Your task to perform on an android device: find which apps use the phone's location Image 0: 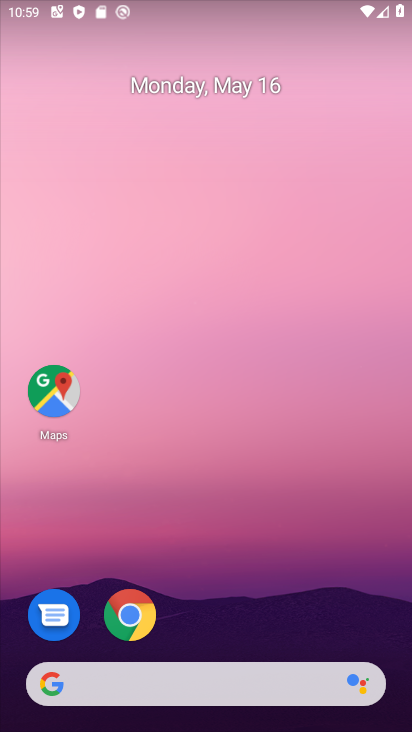
Step 0: drag from (188, 726) to (192, 207)
Your task to perform on an android device: find which apps use the phone's location Image 1: 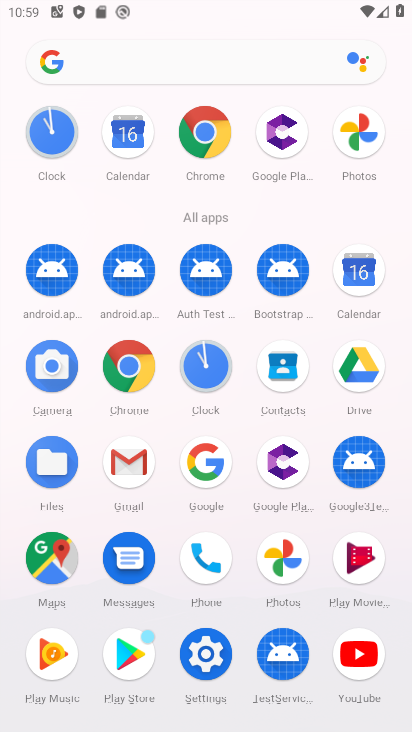
Step 1: click (203, 650)
Your task to perform on an android device: find which apps use the phone's location Image 2: 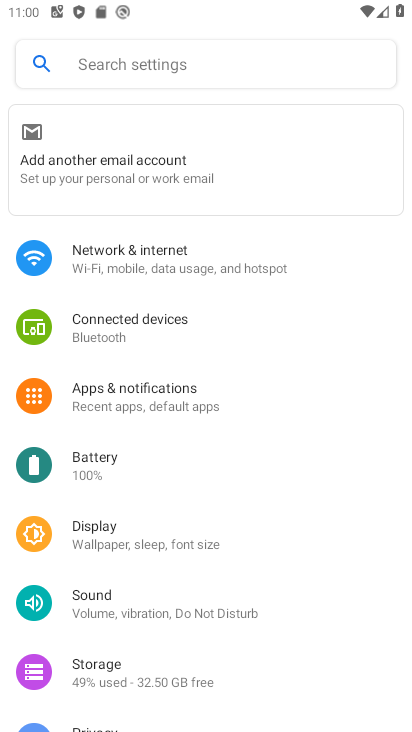
Step 2: drag from (133, 681) to (177, 372)
Your task to perform on an android device: find which apps use the phone's location Image 3: 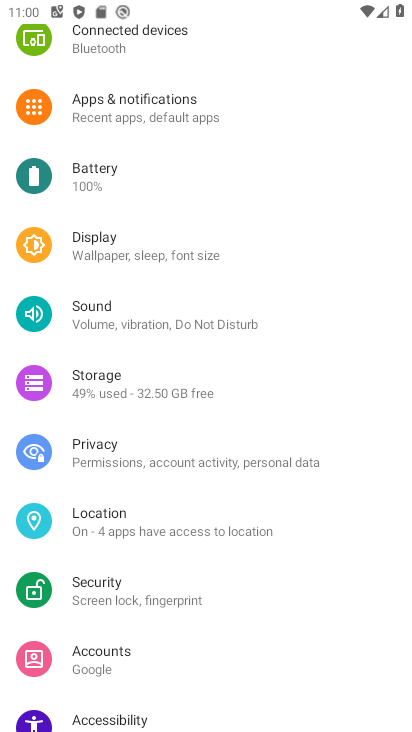
Step 3: click (105, 525)
Your task to perform on an android device: find which apps use the phone's location Image 4: 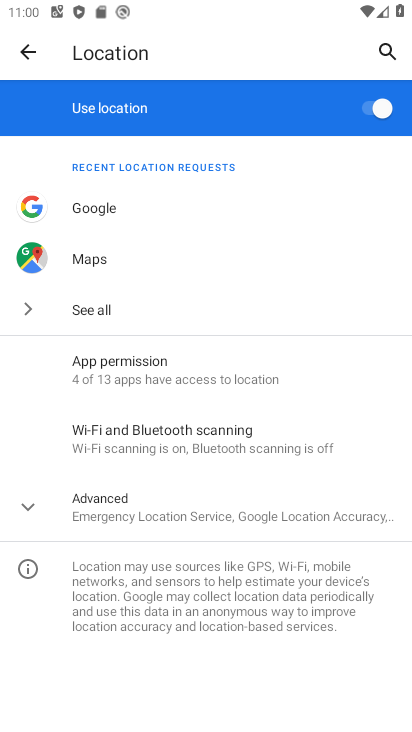
Step 4: click (90, 374)
Your task to perform on an android device: find which apps use the phone's location Image 5: 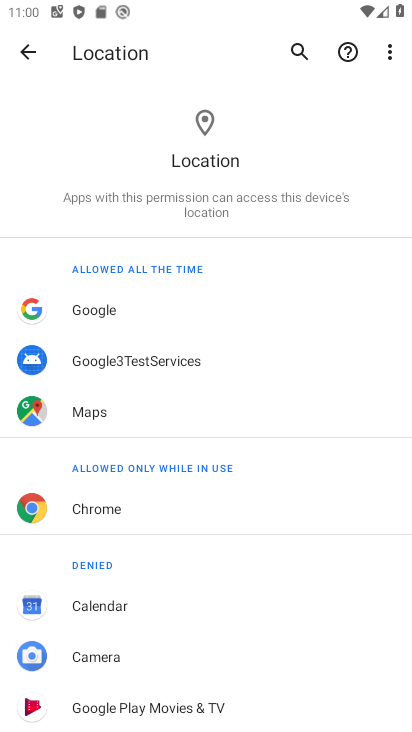
Step 5: task complete